Your task to perform on an android device: change the clock display to analog Image 0: 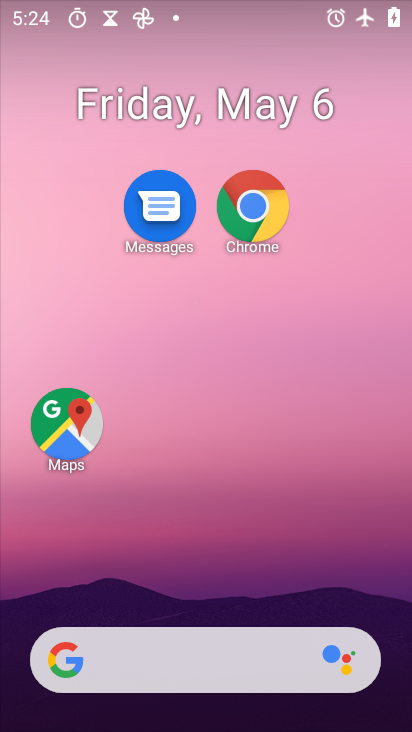
Step 0: drag from (198, 576) to (193, 243)
Your task to perform on an android device: change the clock display to analog Image 1: 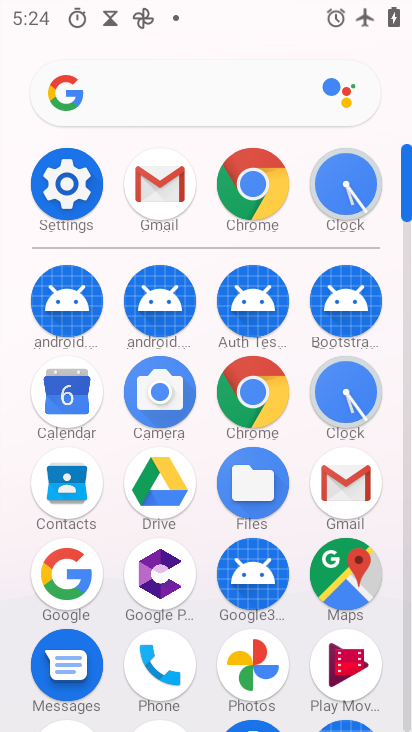
Step 1: click (354, 395)
Your task to perform on an android device: change the clock display to analog Image 2: 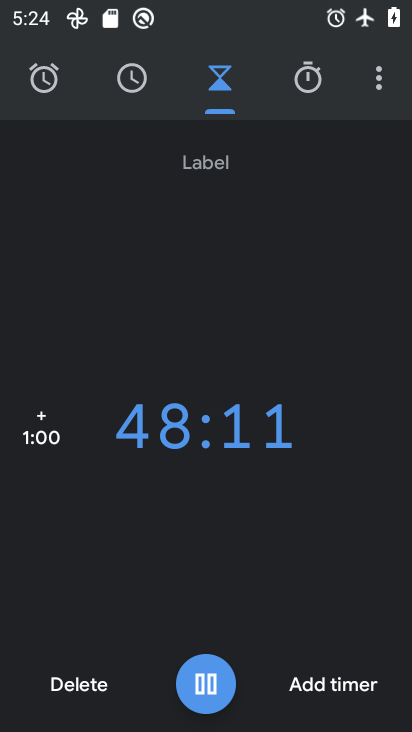
Step 2: click (375, 65)
Your task to perform on an android device: change the clock display to analog Image 3: 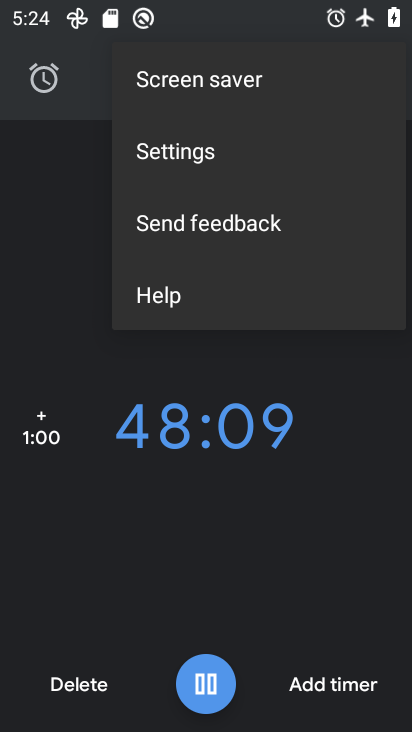
Step 3: click (145, 165)
Your task to perform on an android device: change the clock display to analog Image 4: 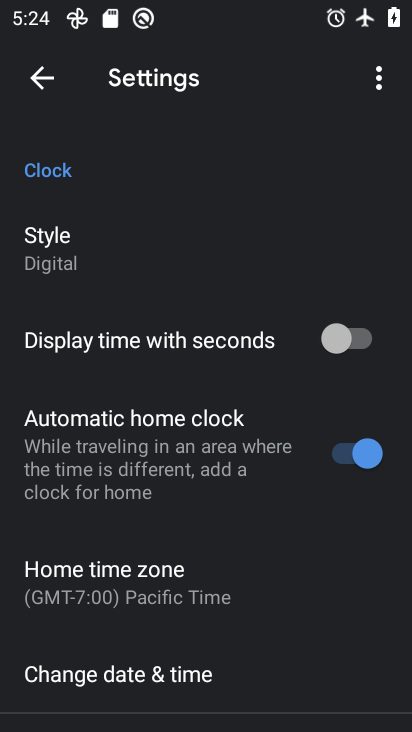
Step 4: click (12, 265)
Your task to perform on an android device: change the clock display to analog Image 5: 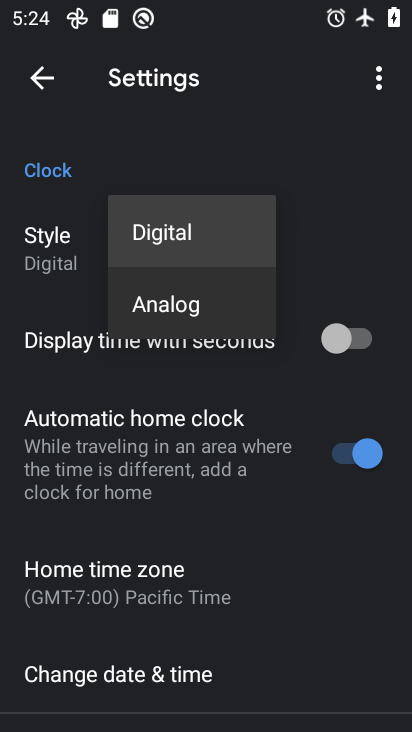
Step 5: click (182, 311)
Your task to perform on an android device: change the clock display to analog Image 6: 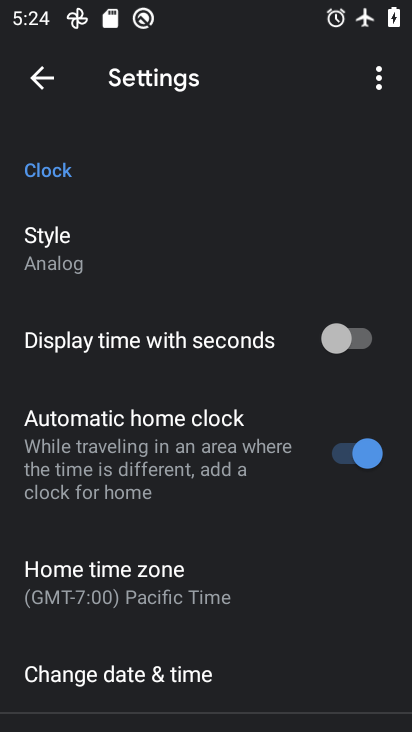
Step 6: task complete